Your task to perform on an android device: Go to accessibility settings Image 0: 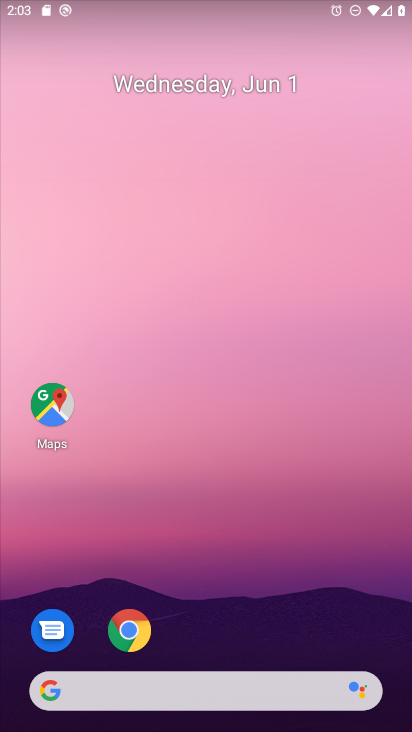
Step 0: drag from (306, 683) to (339, 37)
Your task to perform on an android device: Go to accessibility settings Image 1: 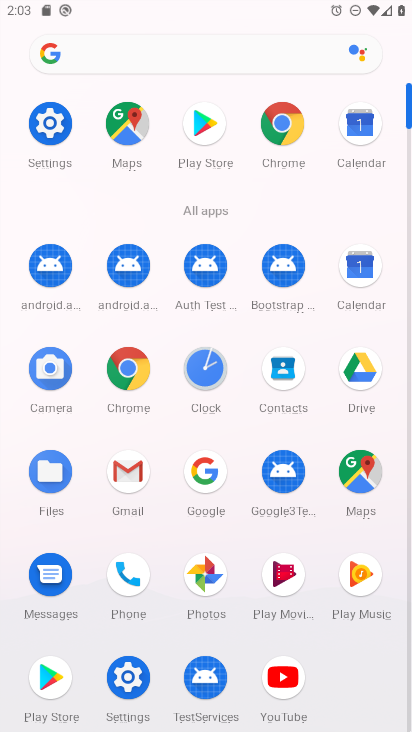
Step 1: click (42, 131)
Your task to perform on an android device: Go to accessibility settings Image 2: 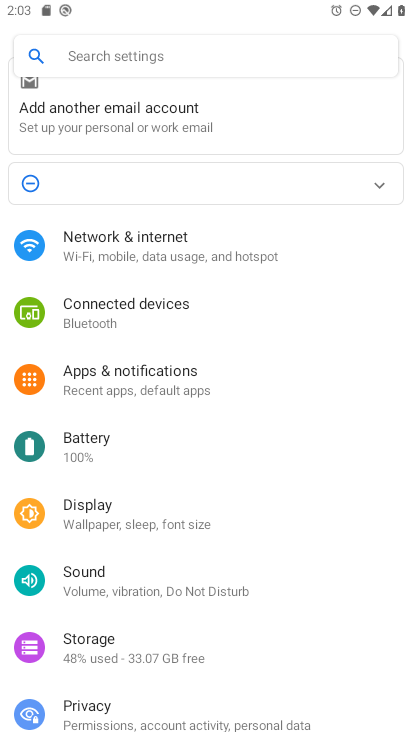
Step 2: drag from (190, 666) to (285, 16)
Your task to perform on an android device: Go to accessibility settings Image 3: 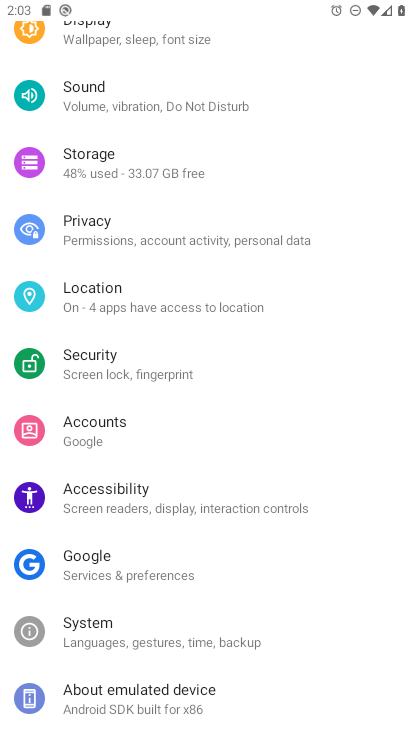
Step 3: click (116, 509)
Your task to perform on an android device: Go to accessibility settings Image 4: 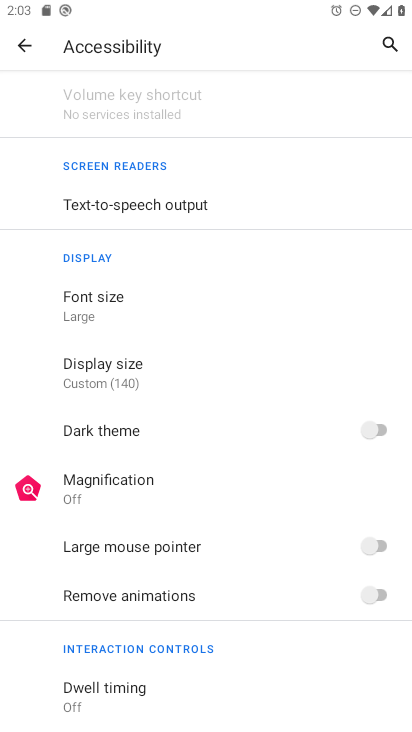
Step 4: task complete